Your task to perform on an android device: find snoozed emails in the gmail app Image 0: 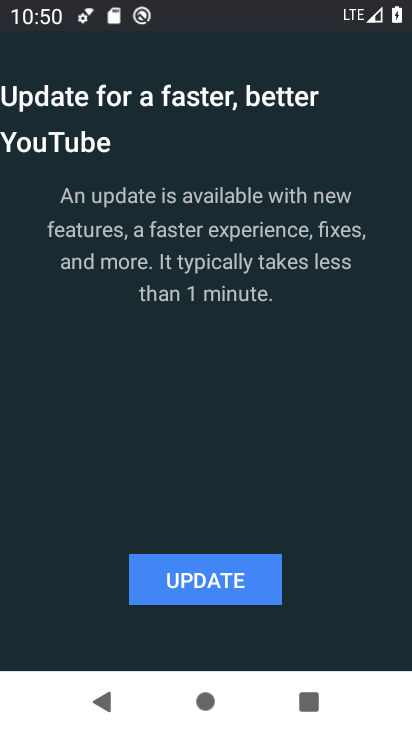
Step 0: press home button
Your task to perform on an android device: find snoozed emails in the gmail app Image 1: 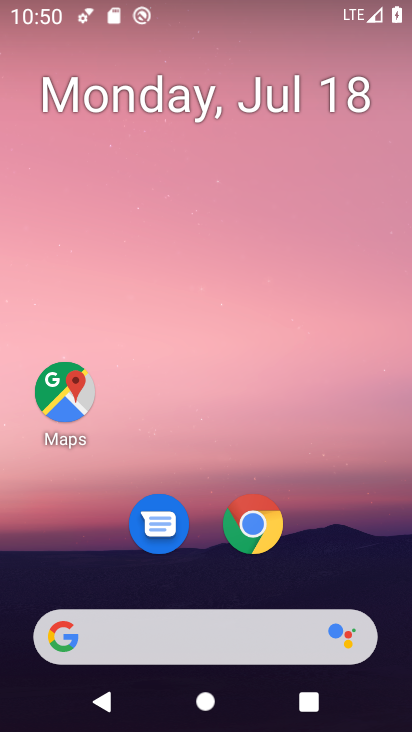
Step 1: drag from (317, 480) to (353, 34)
Your task to perform on an android device: find snoozed emails in the gmail app Image 2: 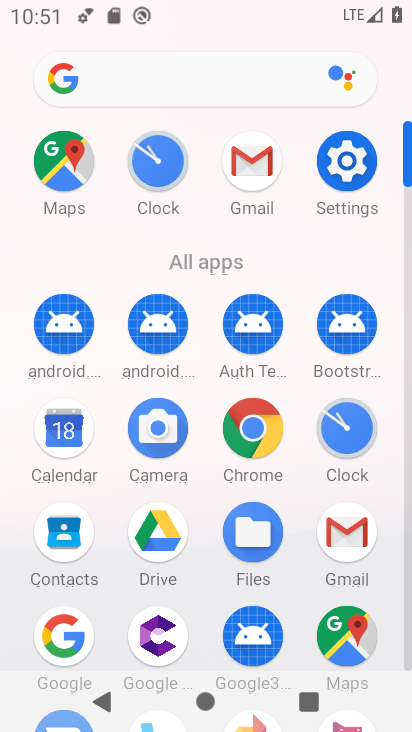
Step 2: click (256, 165)
Your task to perform on an android device: find snoozed emails in the gmail app Image 3: 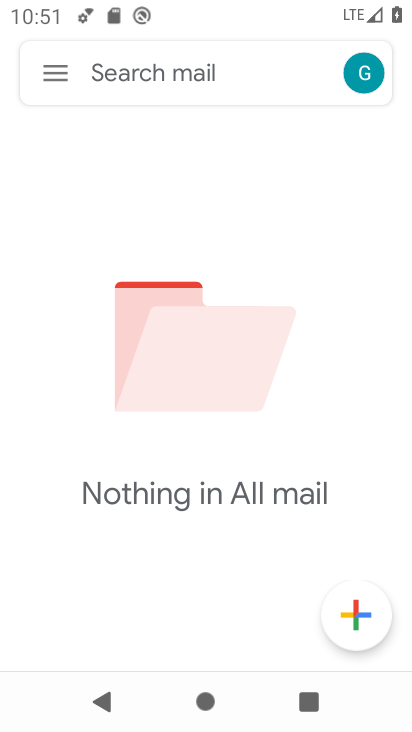
Step 3: click (59, 73)
Your task to perform on an android device: find snoozed emails in the gmail app Image 4: 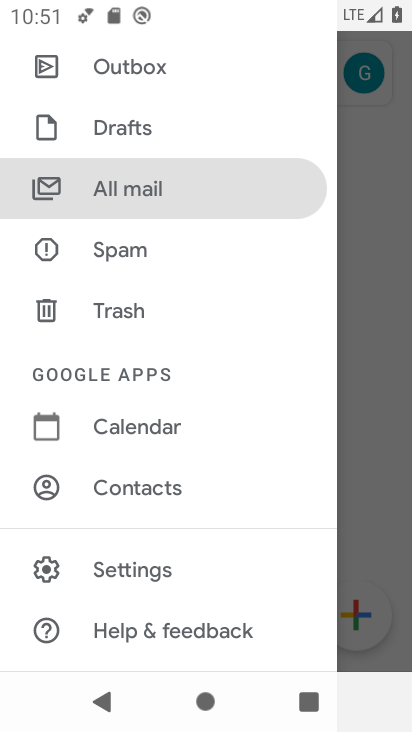
Step 4: drag from (199, 129) to (170, 443)
Your task to perform on an android device: find snoozed emails in the gmail app Image 5: 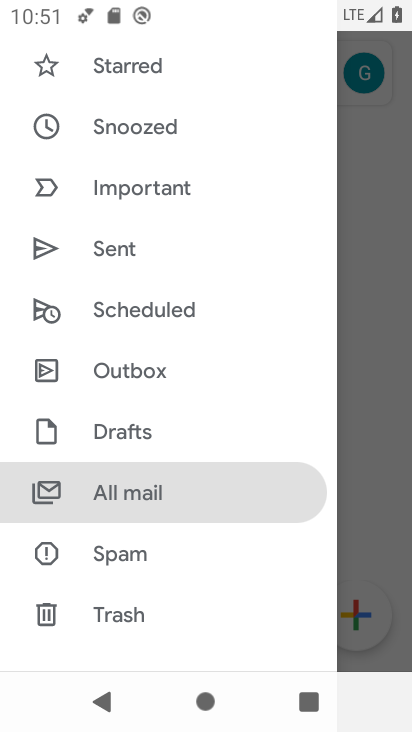
Step 5: click (177, 132)
Your task to perform on an android device: find snoozed emails in the gmail app Image 6: 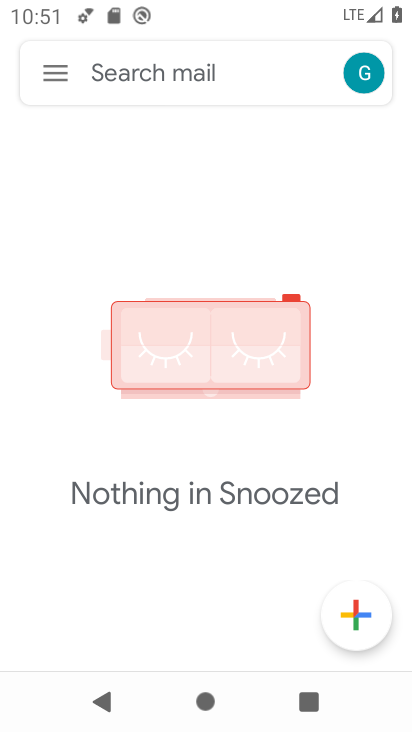
Step 6: task complete